Your task to perform on an android device: Clear the shopping cart on amazon.com. Search for jbl charge 4 on amazon.com, select the first entry, and add it to the cart. Image 0: 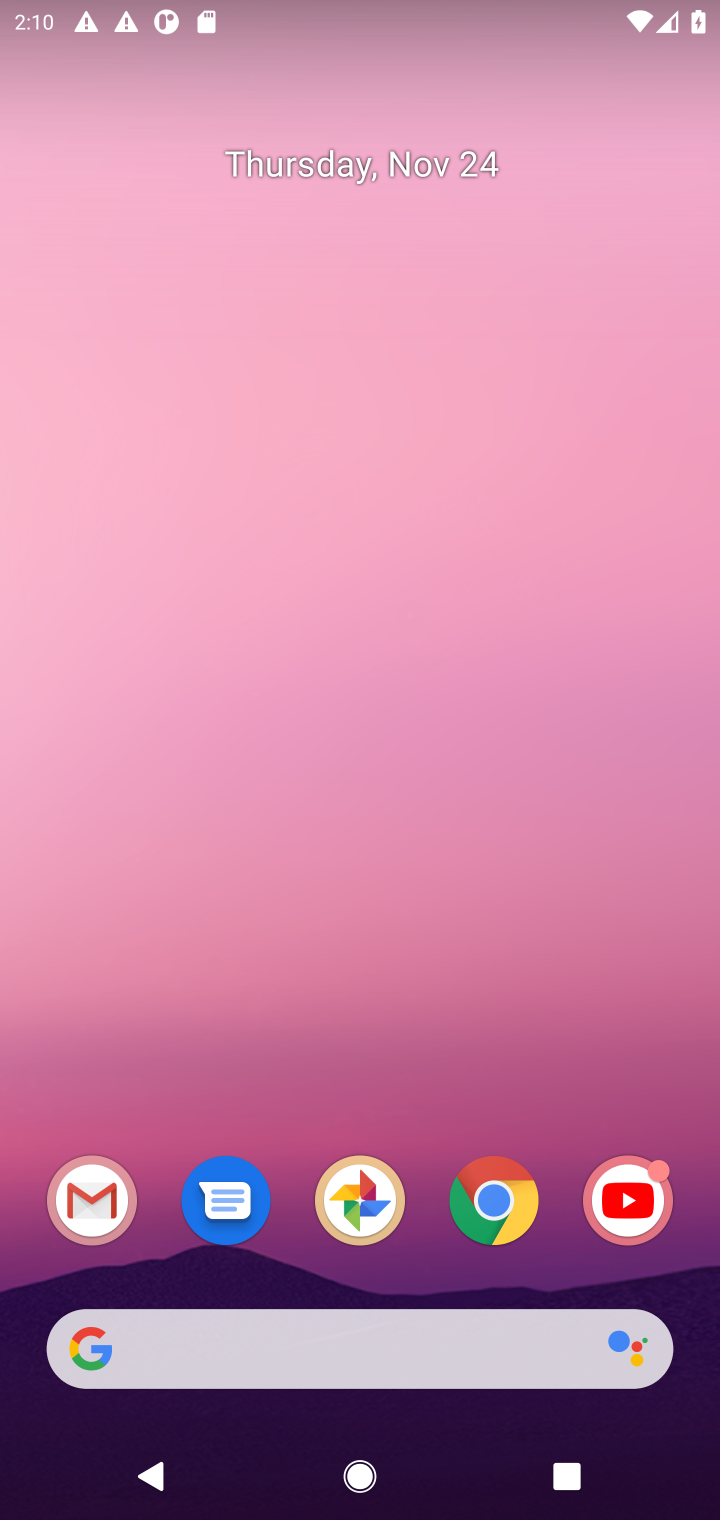
Step 0: click (226, 1331)
Your task to perform on an android device: Clear the shopping cart on amazon.com. Search for jbl charge 4 on amazon.com, select the first entry, and add it to the cart. Image 1: 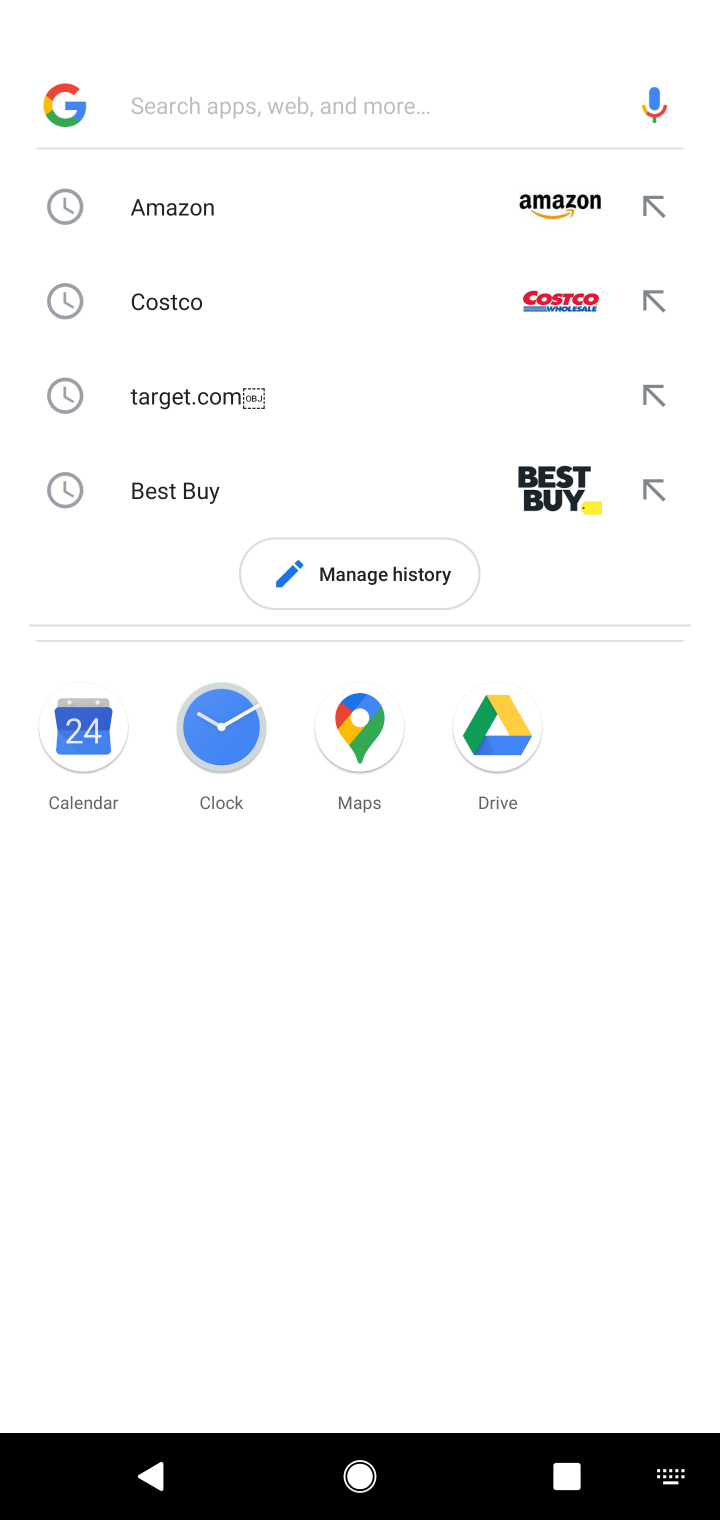
Step 1: type "amazon"
Your task to perform on an android device: Clear the shopping cart on amazon.com. Search for jbl charge 4 on amazon.com, select the first entry, and add it to the cart. Image 2: 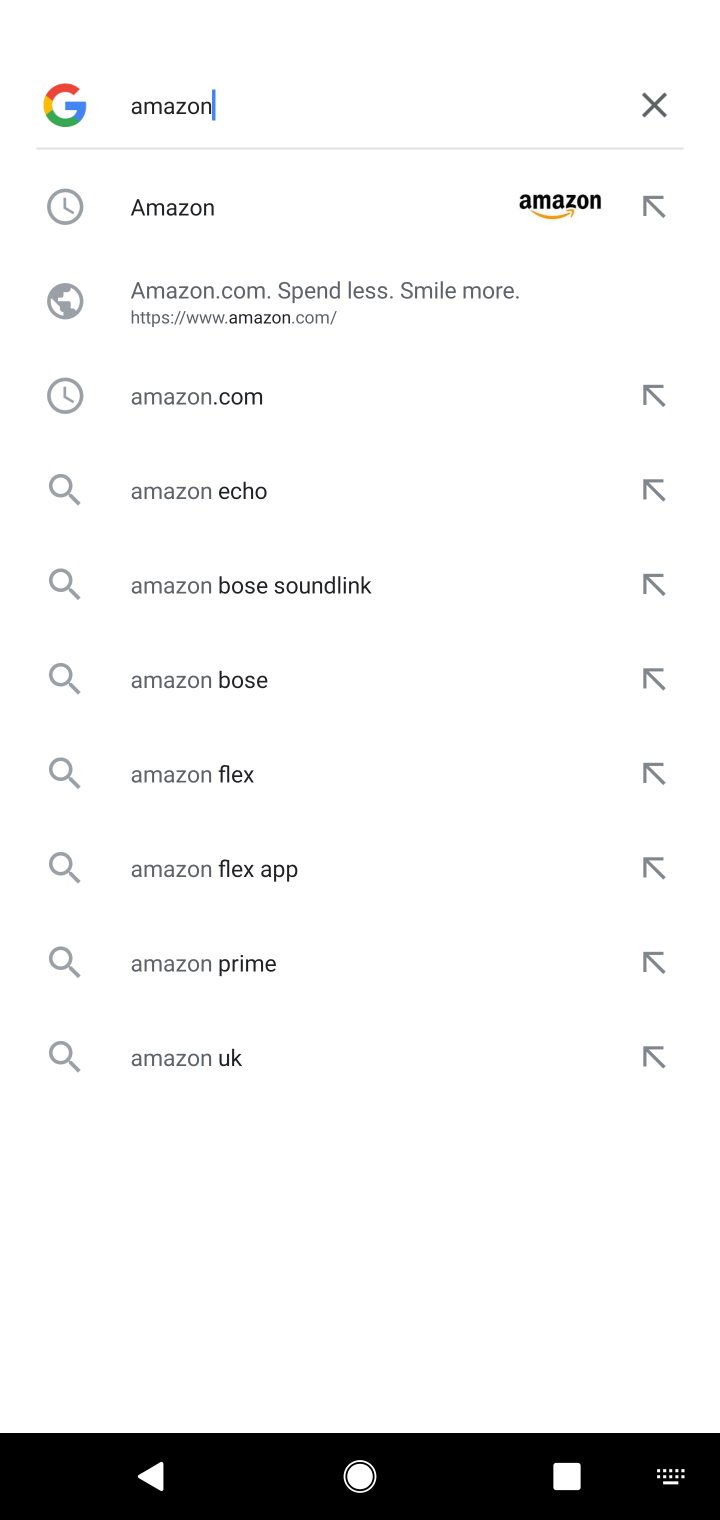
Step 2: click (465, 227)
Your task to perform on an android device: Clear the shopping cart on amazon.com. Search for jbl charge 4 on amazon.com, select the first entry, and add it to the cart. Image 3: 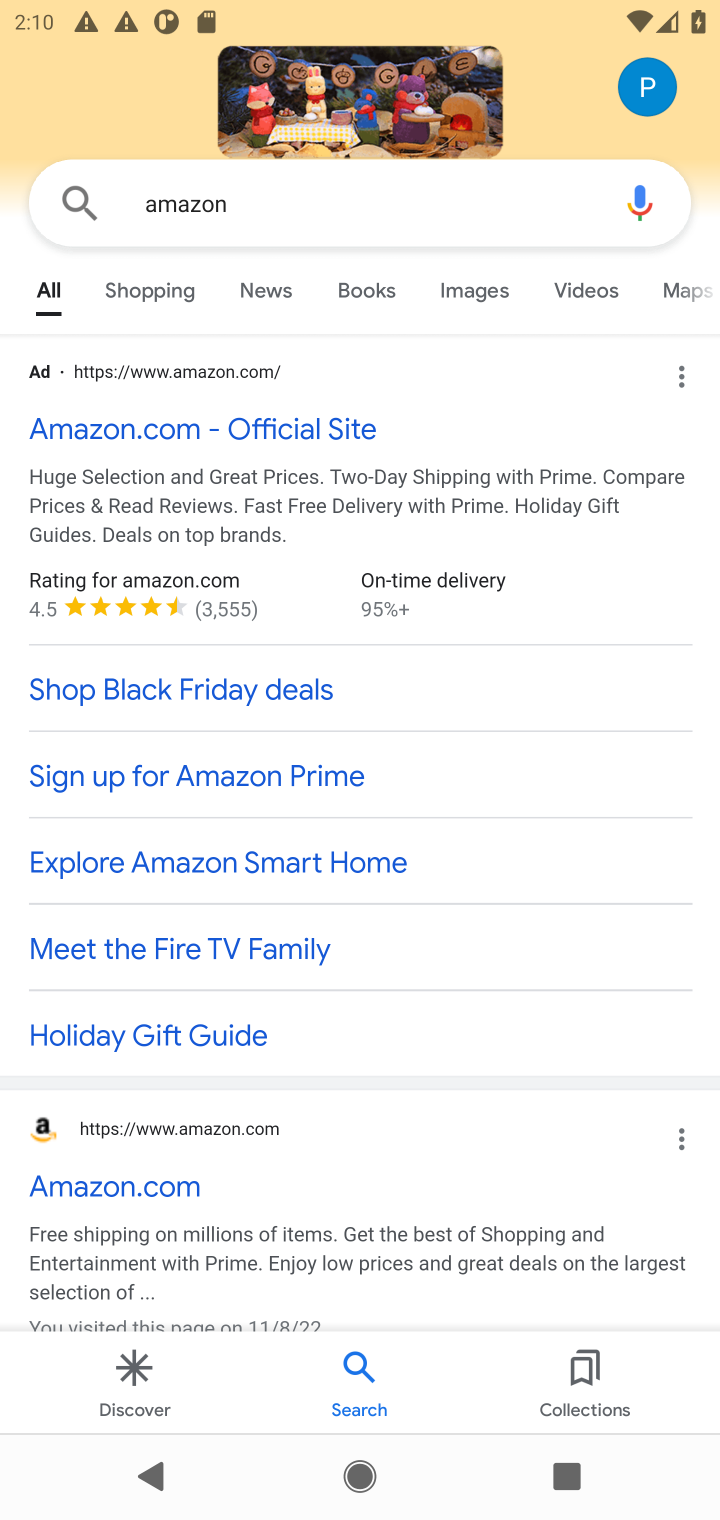
Step 3: click (287, 422)
Your task to perform on an android device: Clear the shopping cart on amazon.com. Search for jbl charge 4 on amazon.com, select the first entry, and add it to the cart. Image 4: 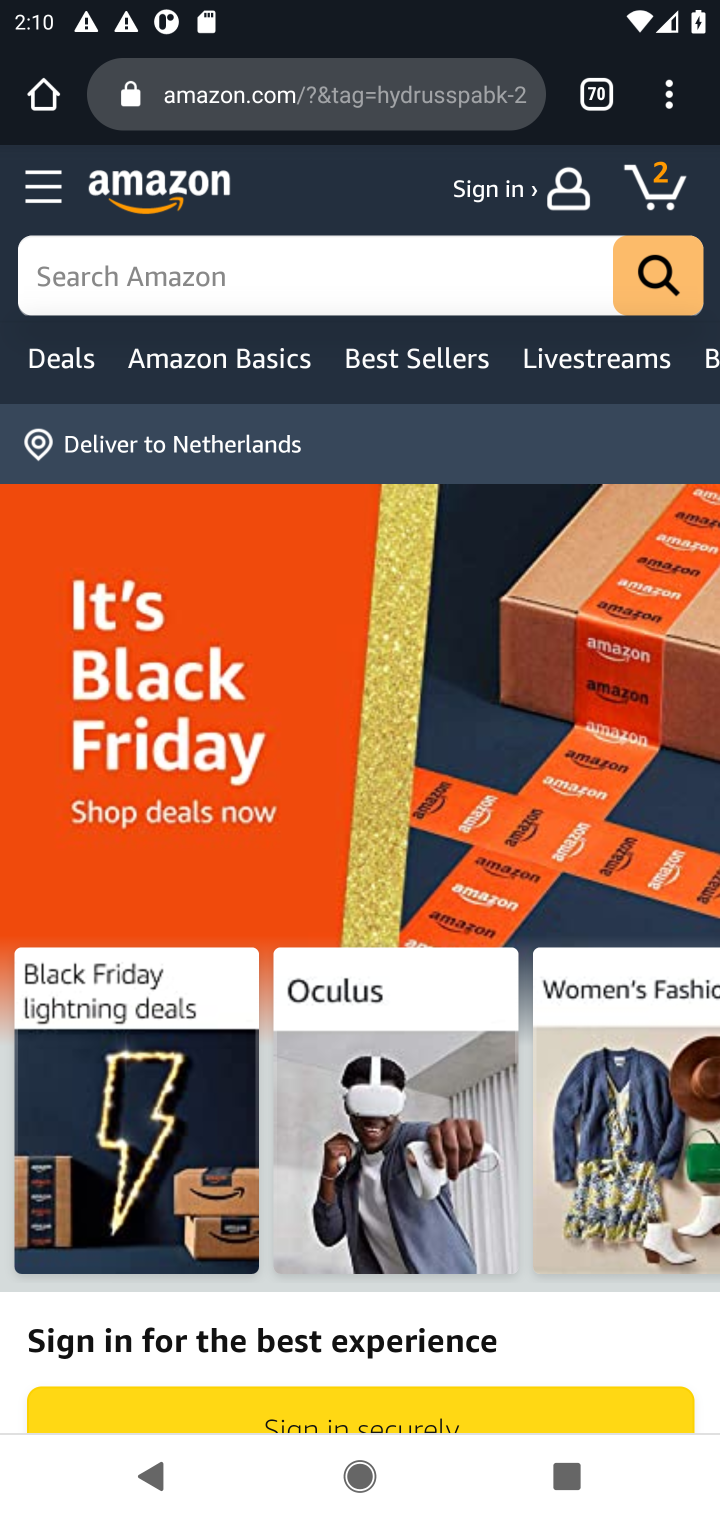
Step 4: click (260, 291)
Your task to perform on an android device: Clear the shopping cart on amazon.com. Search for jbl charge 4 on amazon.com, select the first entry, and add it to the cart. Image 5: 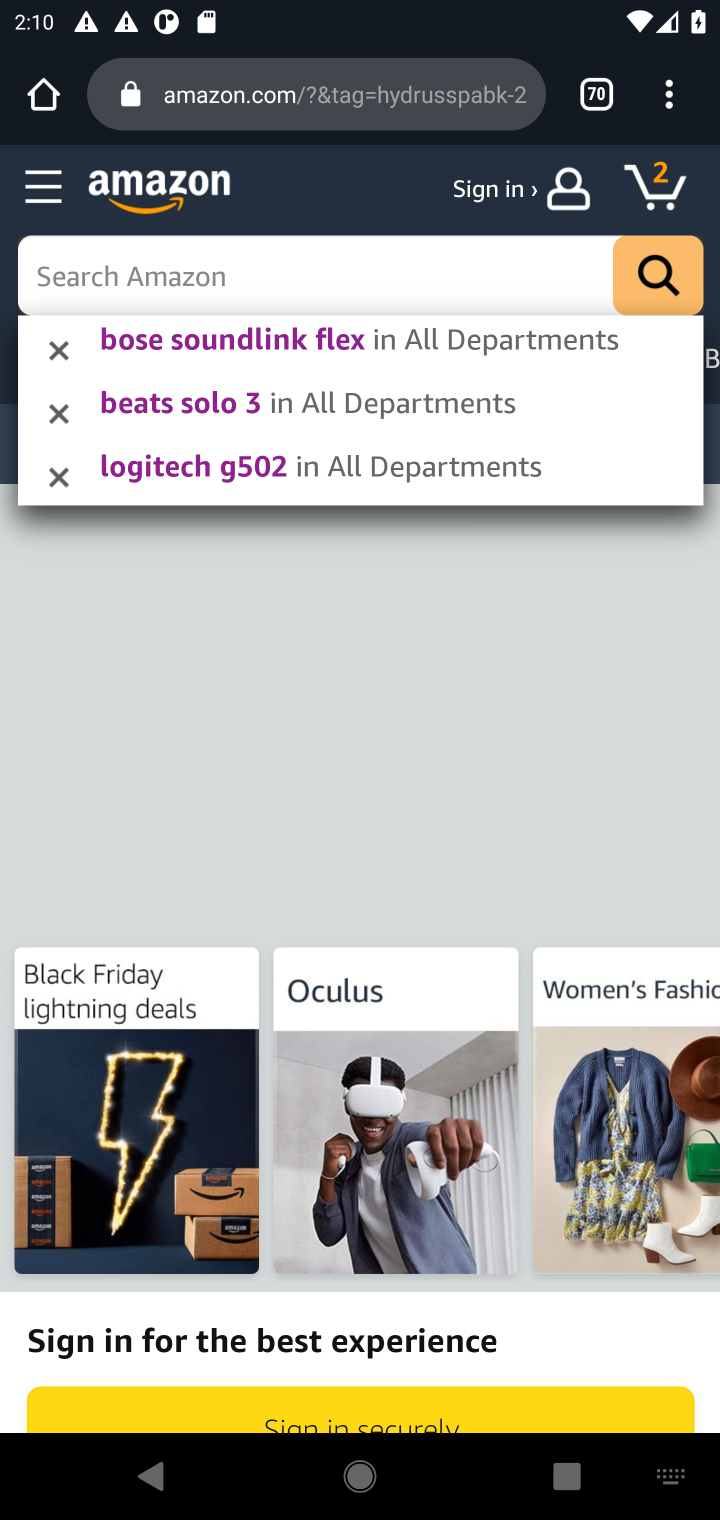
Step 5: type "amazon"
Your task to perform on an android device: Clear the shopping cart on amazon.com. Search for jbl charge 4 on amazon.com, select the first entry, and add it to the cart. Image 6: 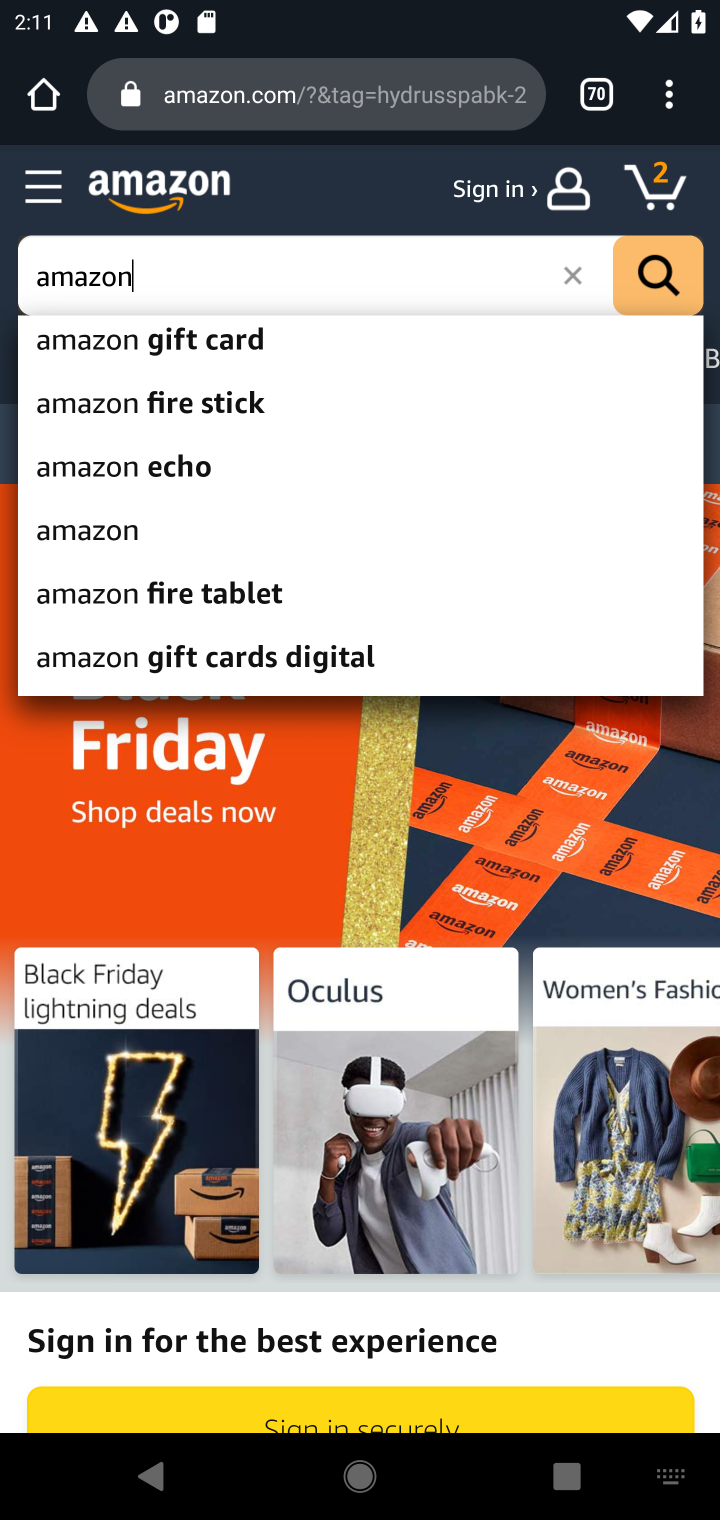
Step 6: click (663, 269)
Your task to perform on an android device: Clear the shopping cart on amazon.com. Search for jbl charge 4 on amazon.com, select the first entry, and add it to the cart. Image 7: 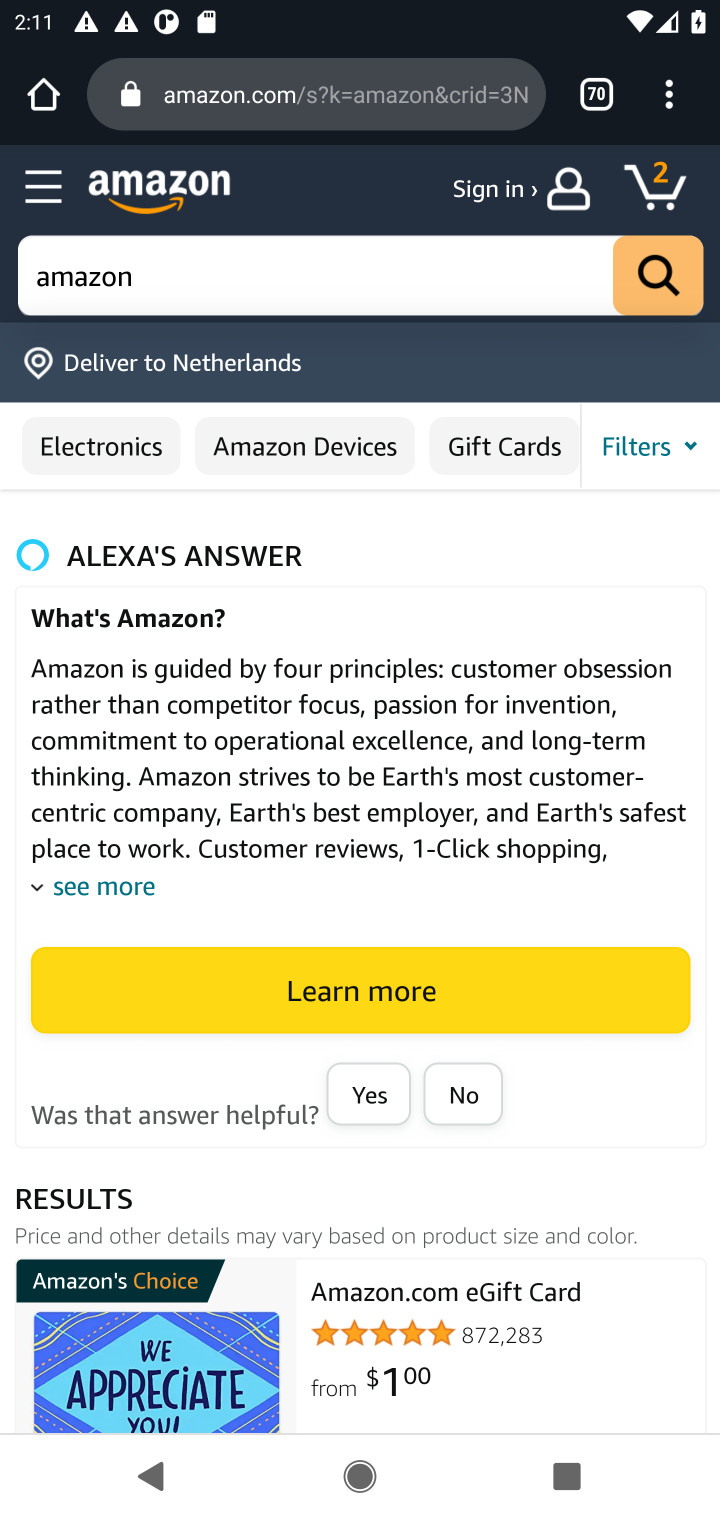
Step 7: task complete